Your task to perform on an android device: choose inbox layout in the gmail app Image 0: 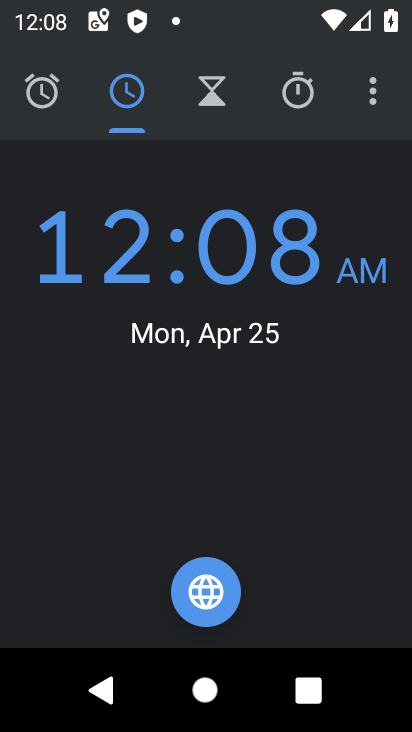
Step 0: press home button
Your task to perform on an android device: choose inbox layout in the gmail app Image 1: 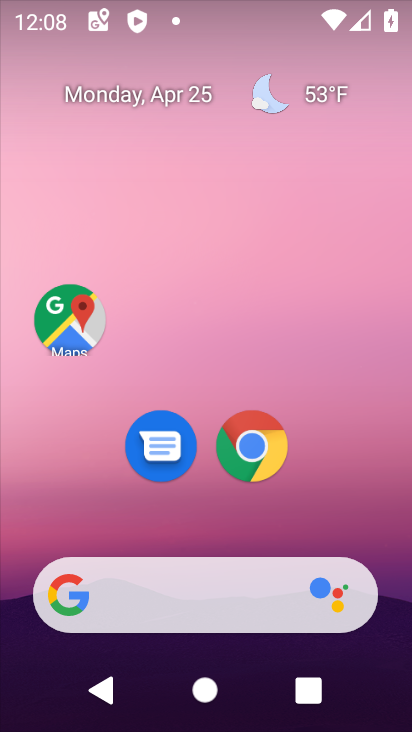
Step 1: drag from (192, 480) to (224, 7)
Your task to perform on an android device: choose inbox layout in the gmail app Image 2: 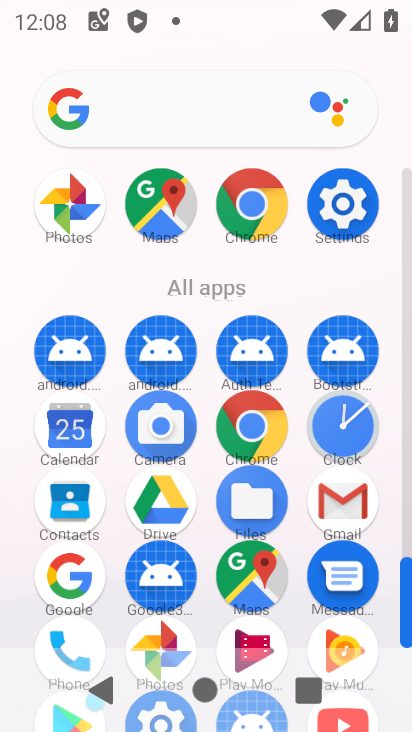
Step 2: click (348, 500)
Your task to perform on an android device: choose inbox layout in the gmail app Image 3: 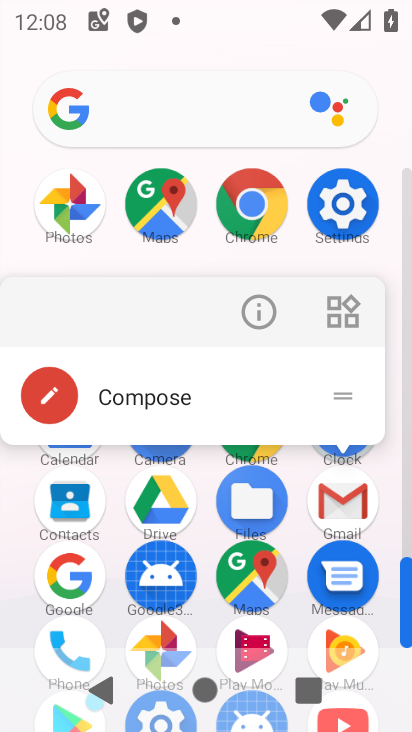
Step 3: click (359, 509)
Your task to perform on an android device: choose inbox layout in the gmail app Image 4: 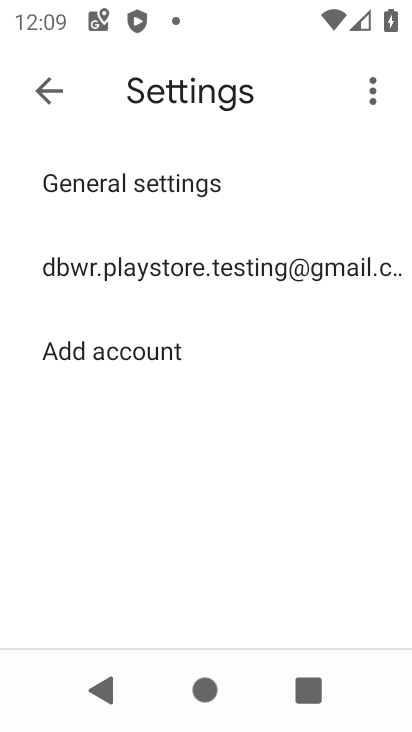
Step 4: click (166, 271)
Your task to perform on an android device: choose inbox layout in the gmail app Image 5: 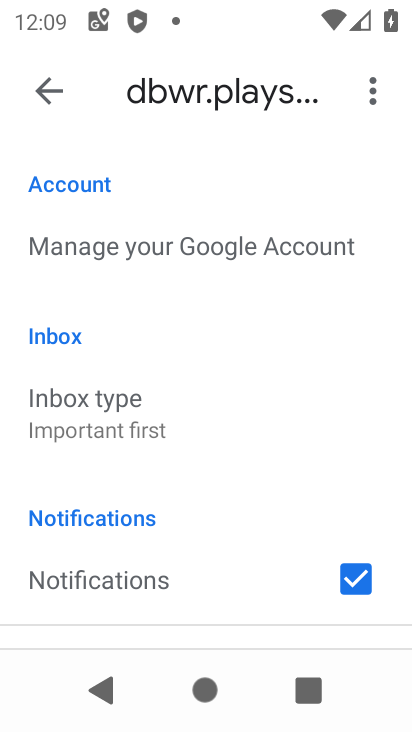
Step 5: click (146, 421)
Your task to perform on an android device: choose inbox layout in the gmail app Image 6: 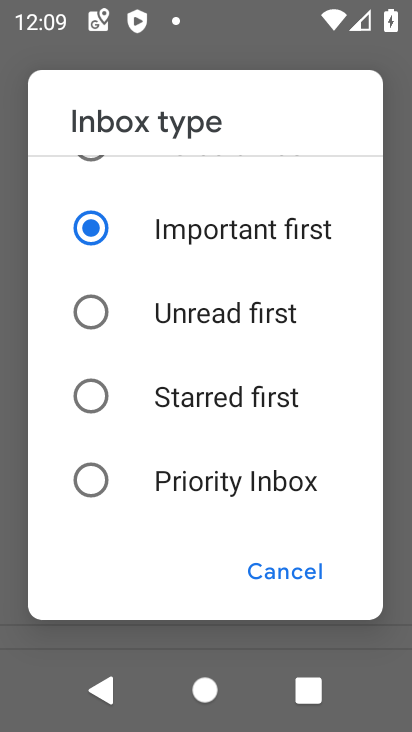
Step 6: drag from (146, 293) to (150, 585)
Your task to perform on an android device: choose inbox layout in the gmail app Image 7: 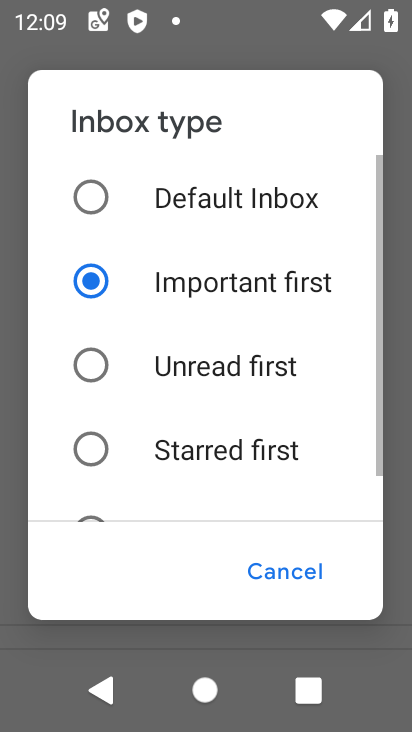
Step 7: click (95, 199)
Your task to perform on an android device: choose inbox layout in the gmail app Image 8: 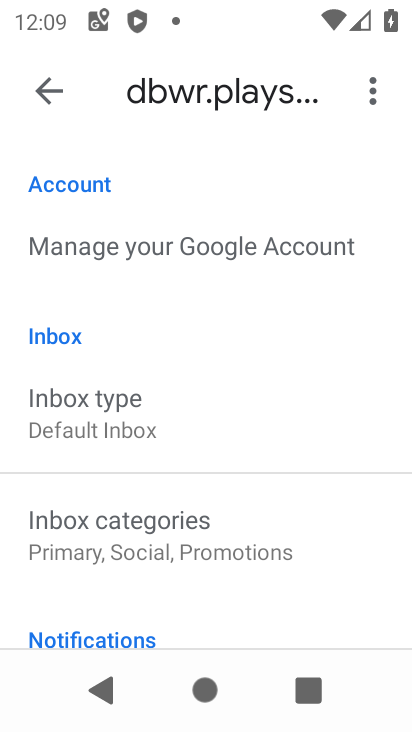
Step 8: task complete